Your task to perform on an android device: see sites visited before in the chrome app Image 0: 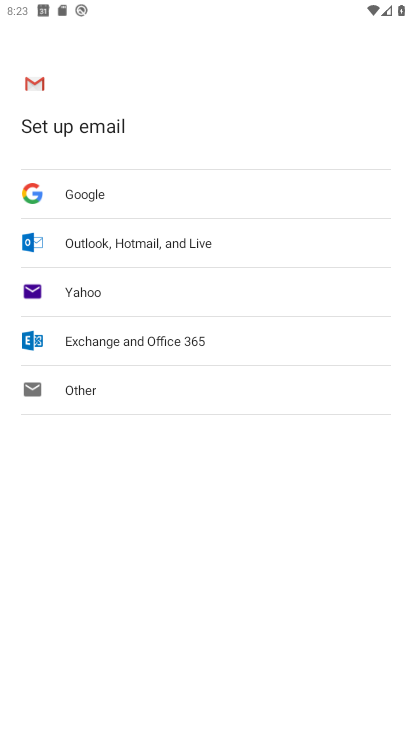
Step 0: press home button
Your task to perform on an android device: see sites visited before in the chrome app Image 1: 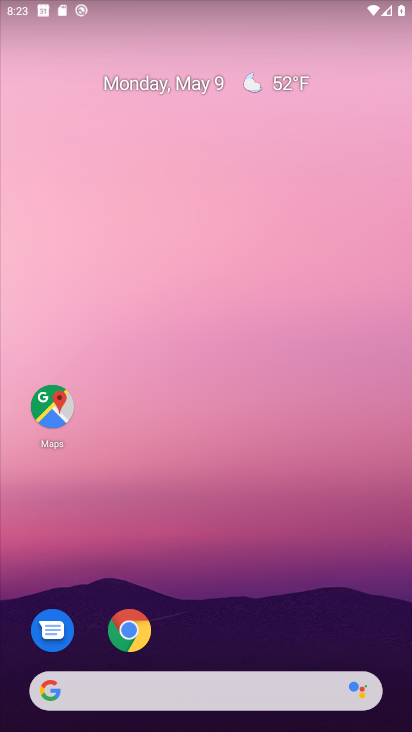
Step 1: click (126, 625)
Your task to perform on an android device: see sites visited before in the chrome app Image 2: 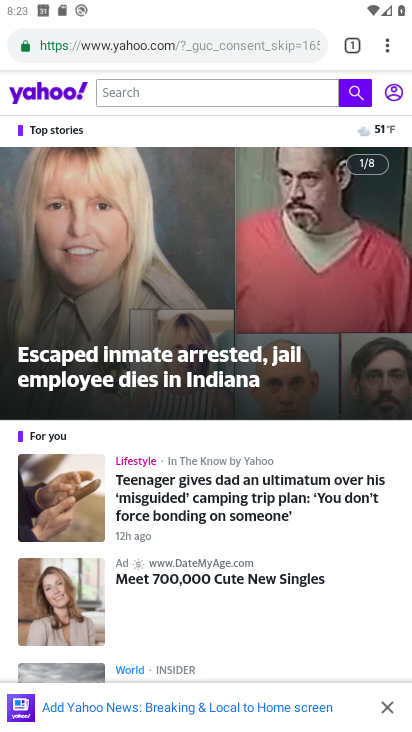
Step 2: click (389, 49)
Your task to perform on an android device: see sites visited before in the chrome app Image 3: 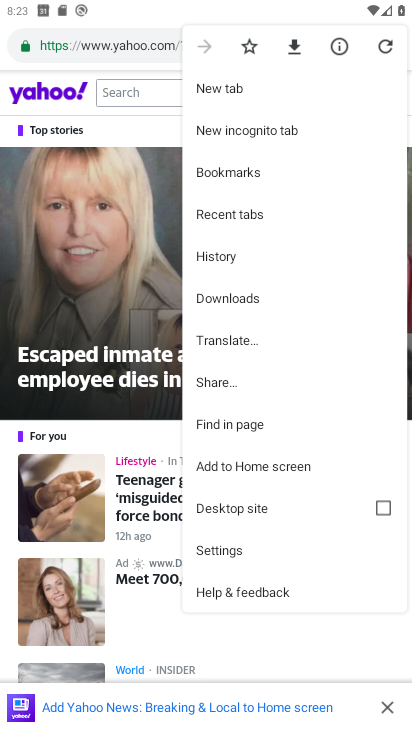
Step 3: click (233, 262)
Your task to perform on an android device: see sites visited before in the chrome app Image 4: 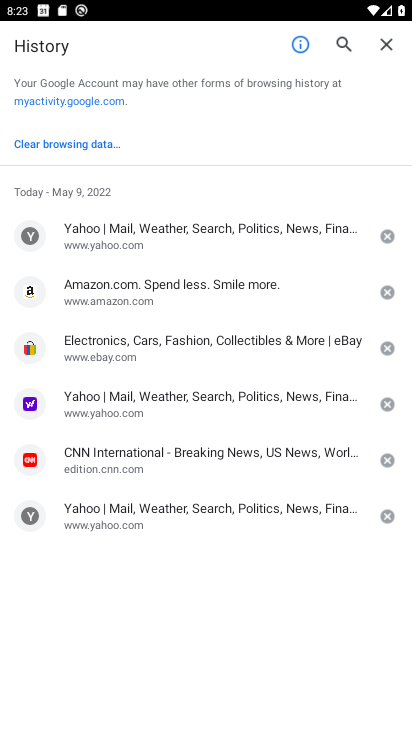
Step 4: task complete